Your task to perform on an android device: turn notification dots off Image 0: 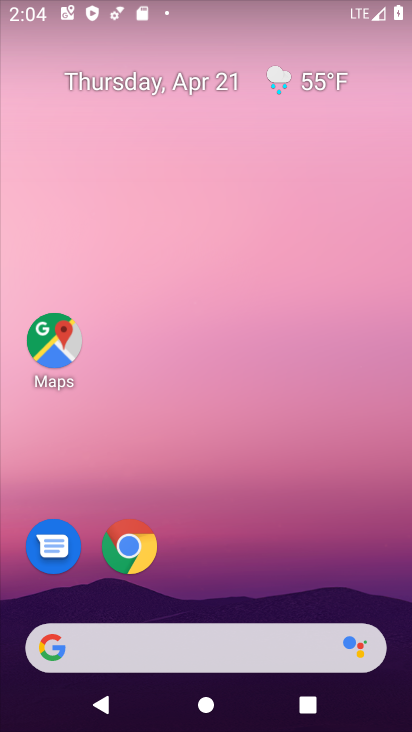
Step 0: click (132, 549)
Your task to perform on an android device: turn notification dots off Image 1: 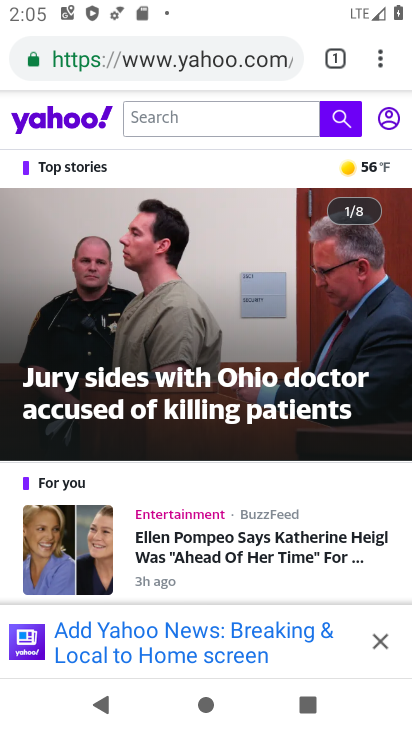
Step 1: press home button
Your task to perform on an android device: turn notification dots off Image 2: 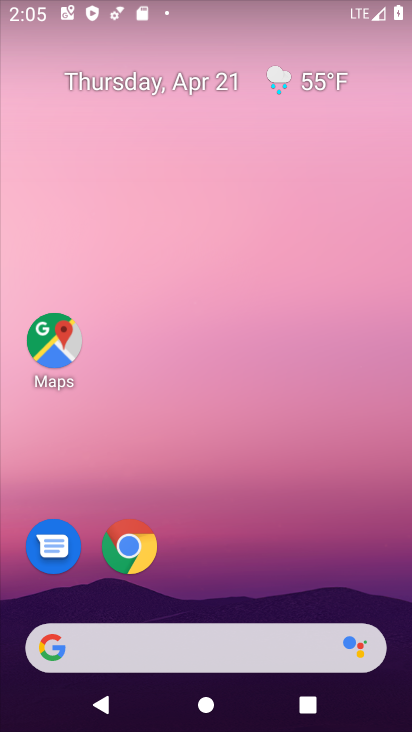
Step 2: drag from (237, 608) to (386, 109)
Your task to perform on an android device: turn notification dots off Image 3: 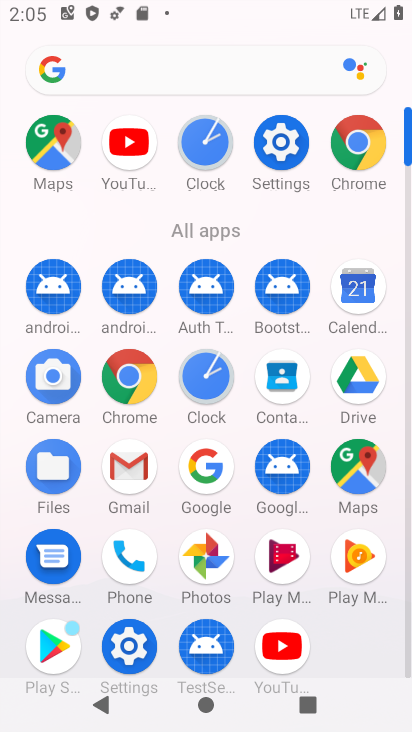
Step 3: click (128, 656)
Your task to perform on an android device: turn notification dots off Image 4: 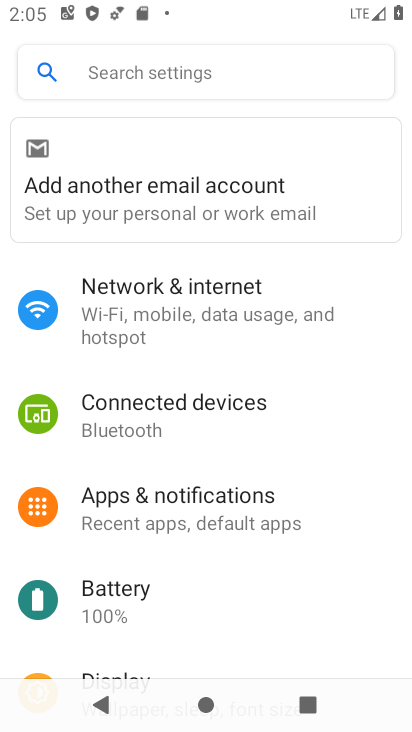
Step 4: click (149, 491)
Your task to perform on an android device: turn notification dots off Image 5: 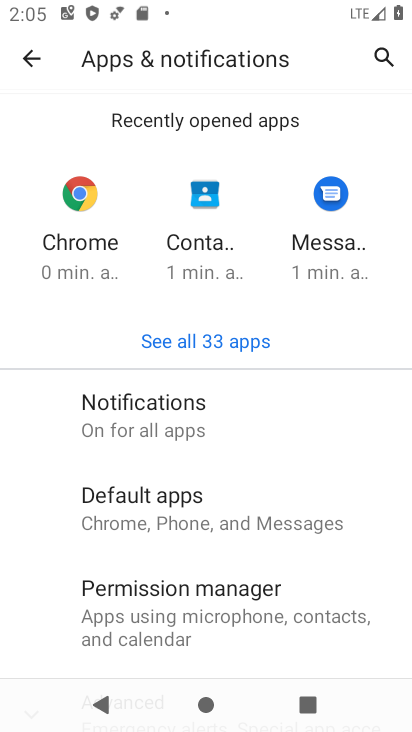
Step 5: click (234, 401)
Your task to perform on an android device: turn notification dots off Image 6: 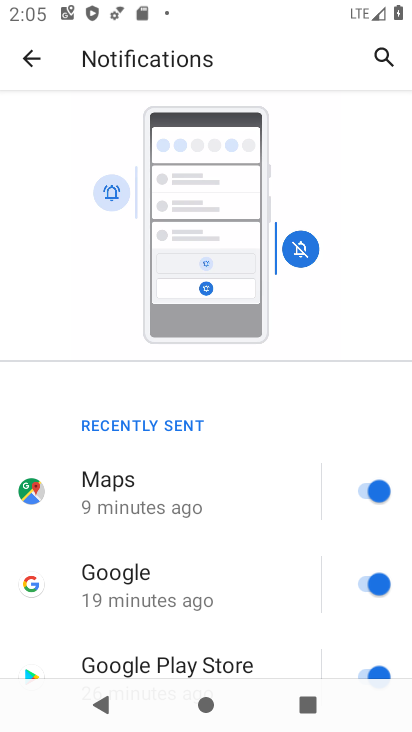
Step 6: drag from (79, 647) to (265, 219)
Your task to perform on an android device: turn notification dots off Image 7: 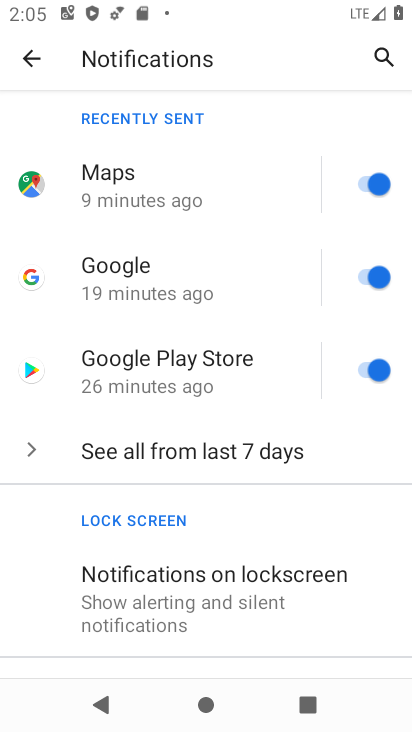
Step 7: click (219, 599)
Your task to perform on an android device: turn notification dots off Image 8: 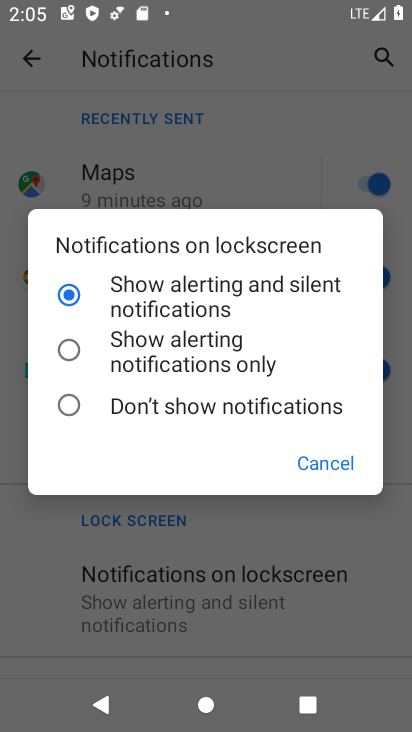
Step 8: click (196, 425)
Your task to perform on an android device: turn notification dots off Image 9: 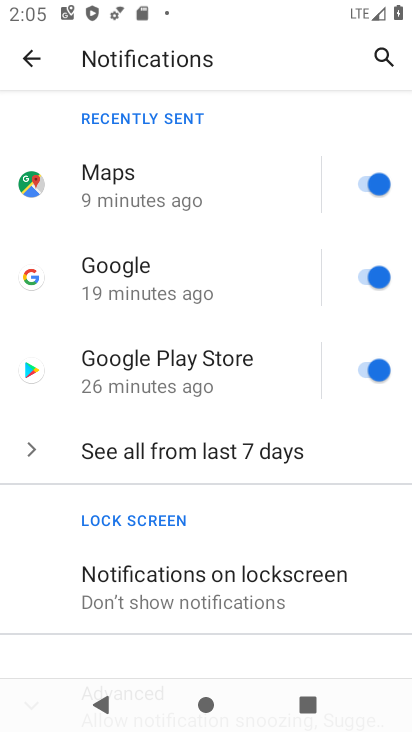
Step 9: task complete